Your task to perform on an android device: Search for vegetarian restaurants on Maps Image 0: 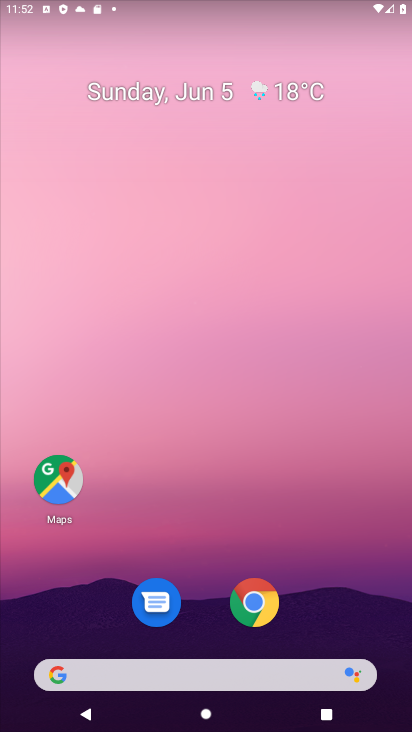
Step 0: task complete